Your task to perform on an android device: manage bookmarks in the chrome app Image 0: 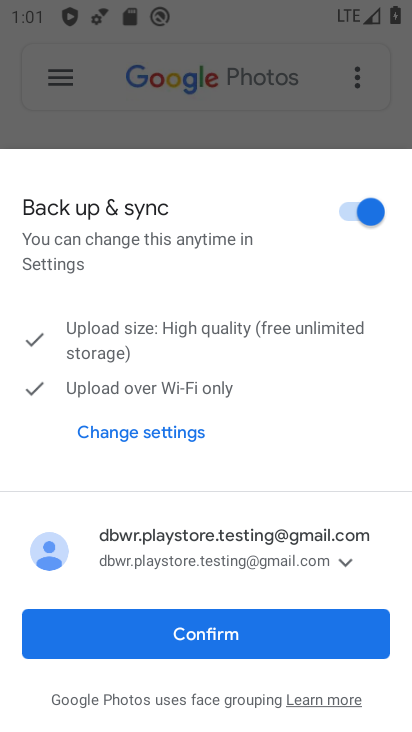
Step 0: click (212, 629)
Your task to perform on an android device: manage bookmarks in the chrome app Image 1: 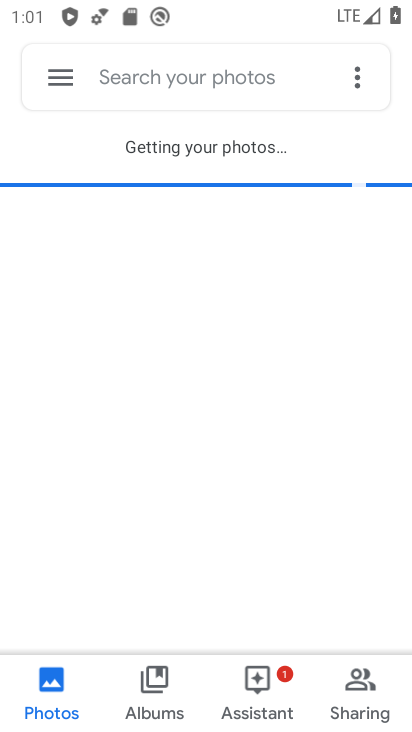
Step 1: click (199, 537)
Your task to perform on an android device: manage bookmarks in the chrome app Image 2: 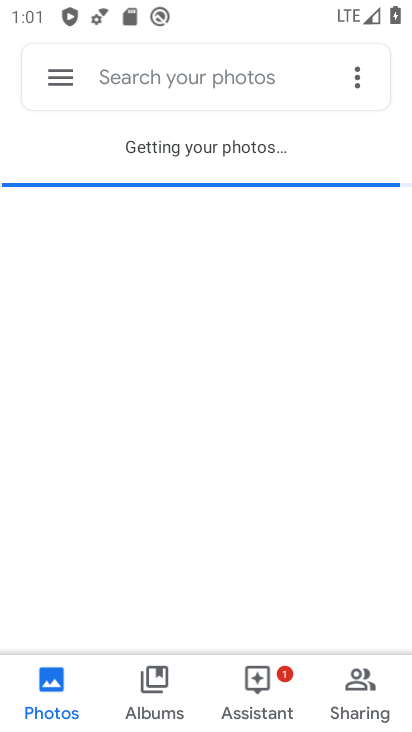
Step 2: drag from (211, 330) to (233, 179)
Your task to perform on an android device: manage bookmarks in the chrome app Image 3: 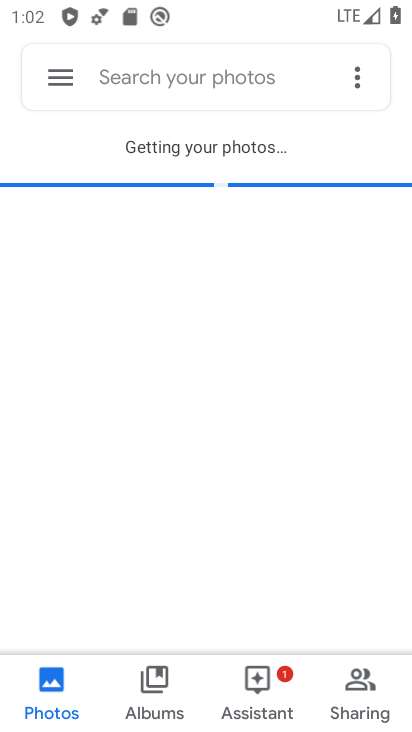
Step 3: drag from (237, 499) to (236, 110)
Your task to perform on an android device: manage bookmarks in the chrome app Image 4: 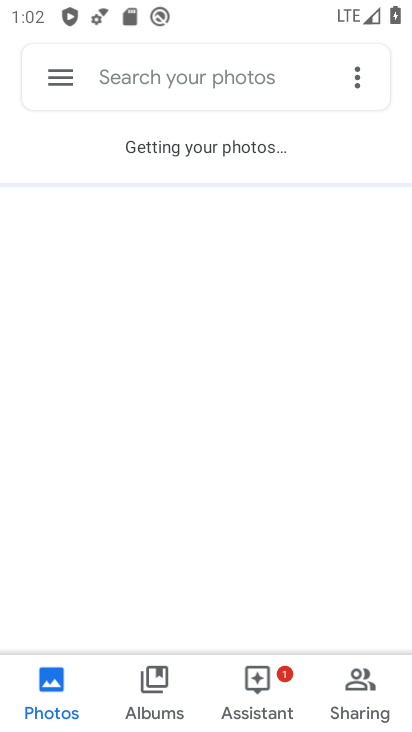
Step 4: click (71, 70)
Your task to perform on an android device: manage bookmarks in the chrome app Image 5: 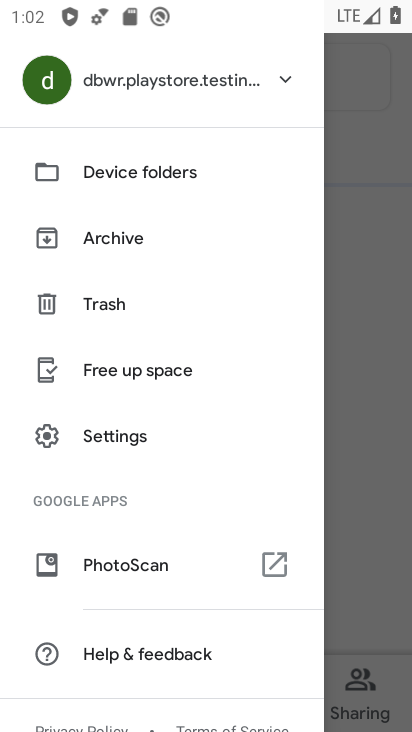
Step 5: click (336, 397)
Your task to perform on an android device: manage bookmarks in the chrome app Image 6: 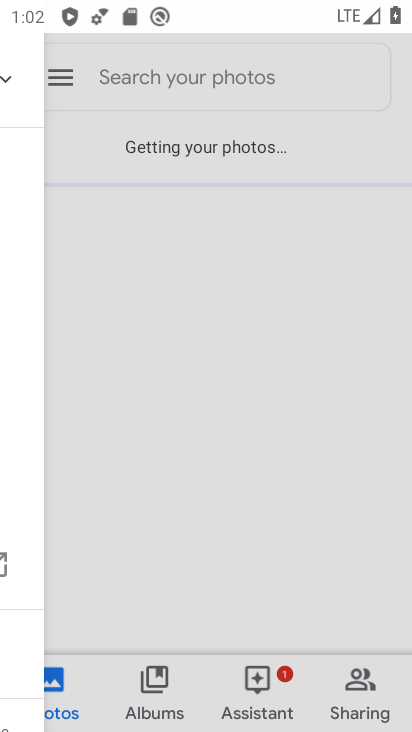
Step 6: press home button
Your task to perform on an android device: manage bookmarks in the chrome app Image 7: 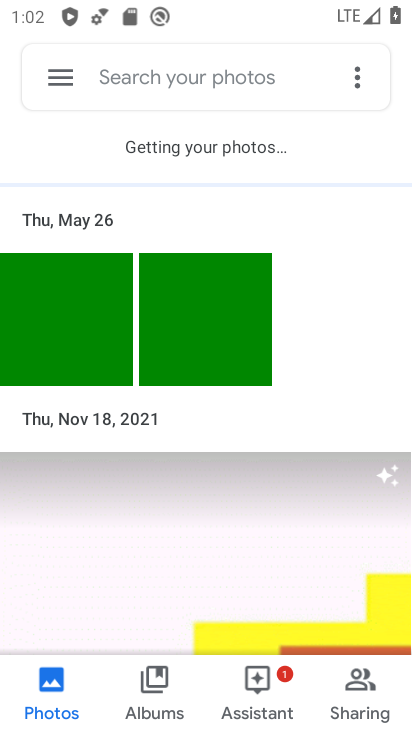
Step 7: drag from (241, 406) to (230, 30)
Your task to perform on an android device: manage bookmarks in the chrome app Image 8: 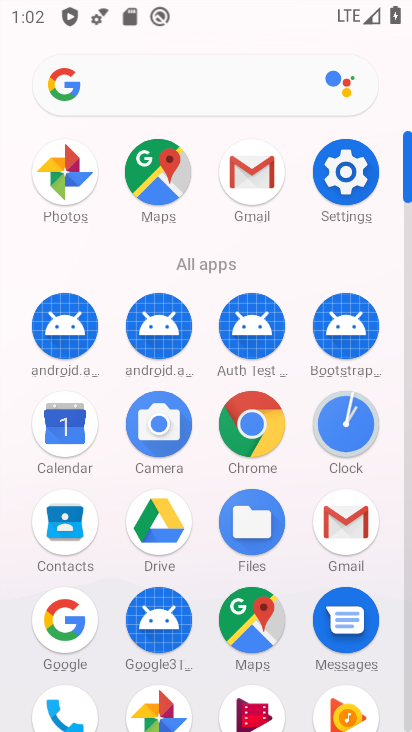
Step 8: click (246, 407)
Your task to perform on an android device: manage bookmarks in the chrome app Image 9: 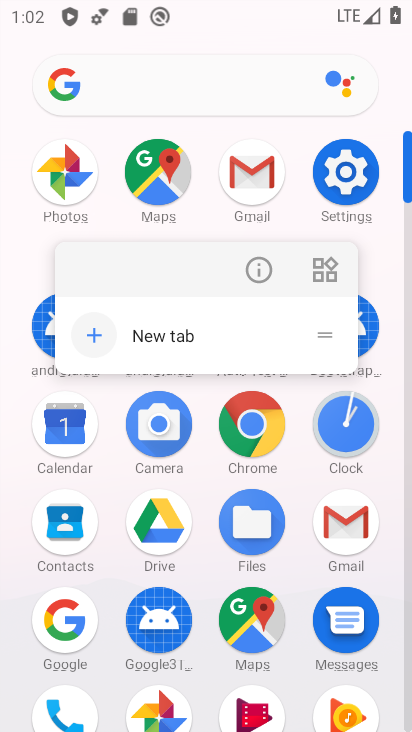
Step 9: click (266, 254)
Your task to perform on an android device: manage bookmarks in the chrome app Image 10: 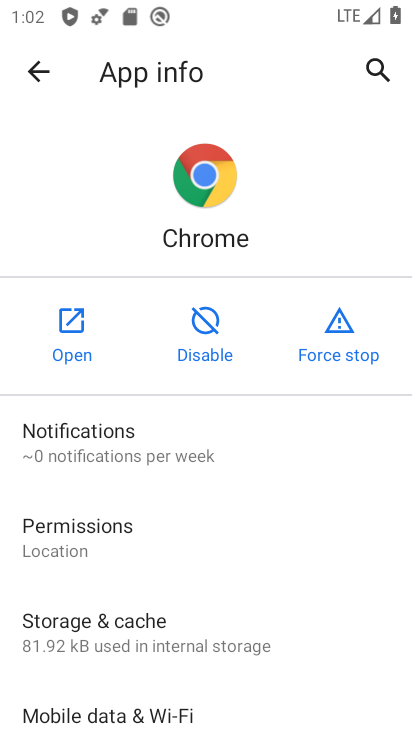
Step 10: click (54, 327)
Your task to perform on an android device: manage bookmarks in the chrome app Image 11: 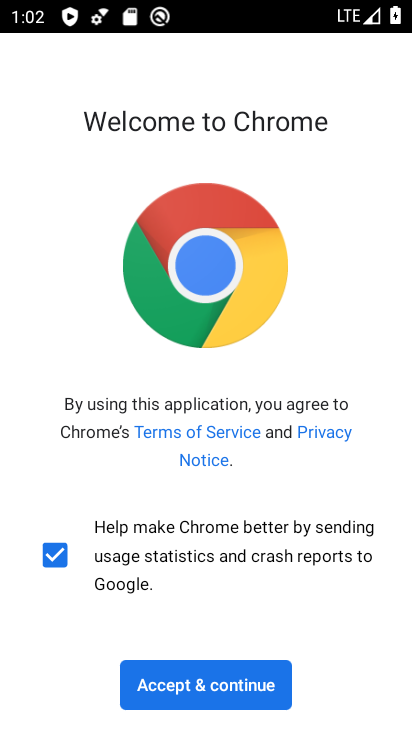
Step 11: click (200, 683)
Your task to perform on an android device: manage bookmarks in the chrome app Image 12: 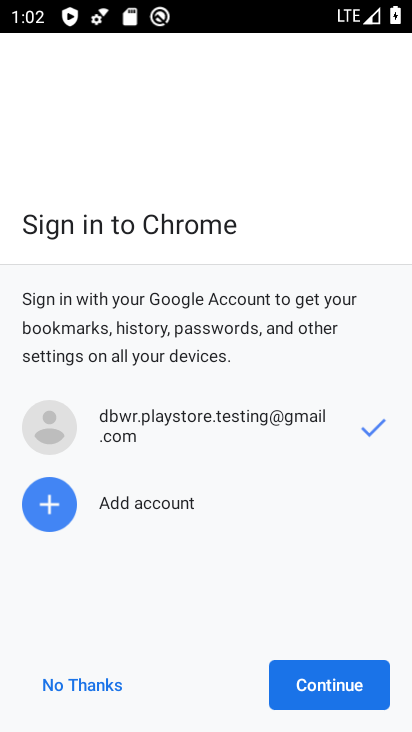
Step 12: click (315, 693)
Your task to perform on an android device: manage bookmarks in the chrome app Image 13: 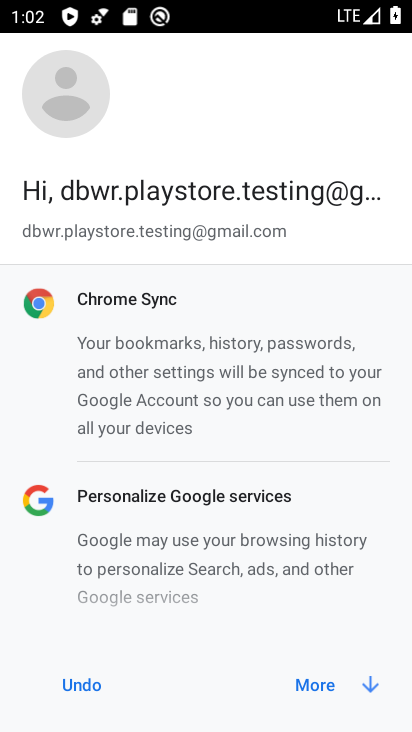
Step 13: click (320, 682)
Your task to perform on an android device: manage bookmarks in the chrome app Image 14: 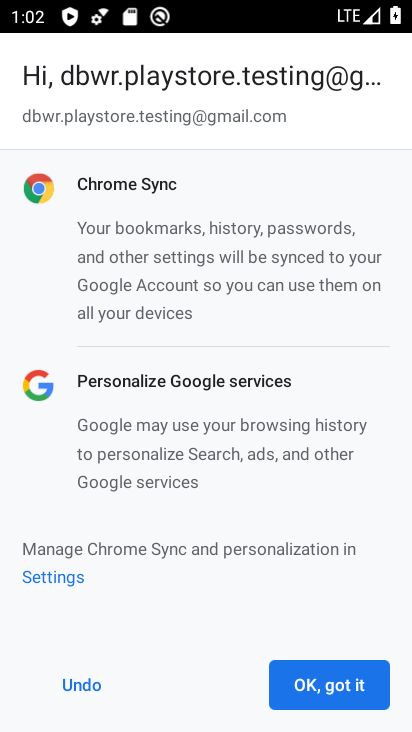
Step 14: click (330, 679)
Your task to perform on an android device: manage bookmarks in the chrome app Image 15: 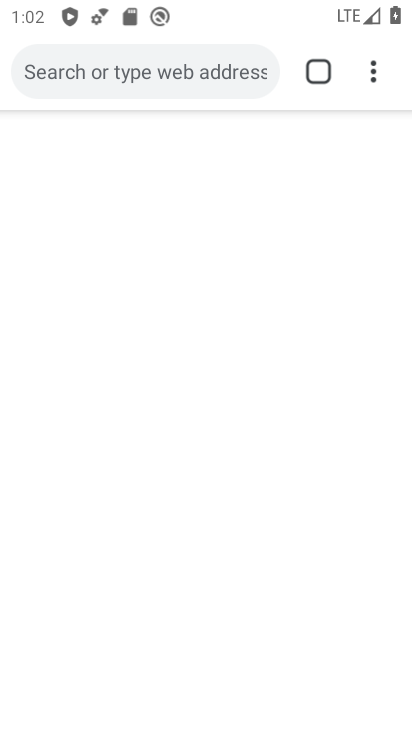
Step 15: task complete